Your task to perform on an android device: choose inbox layout in the gmail app Image 0: 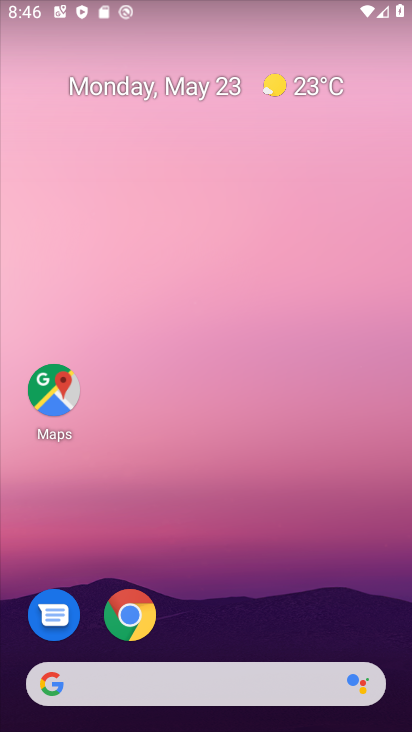
Step 0: drag from (286, 574) to (284, 156)
Your task to perform on an android device: choose inbox layout in the gmail app Image 1: 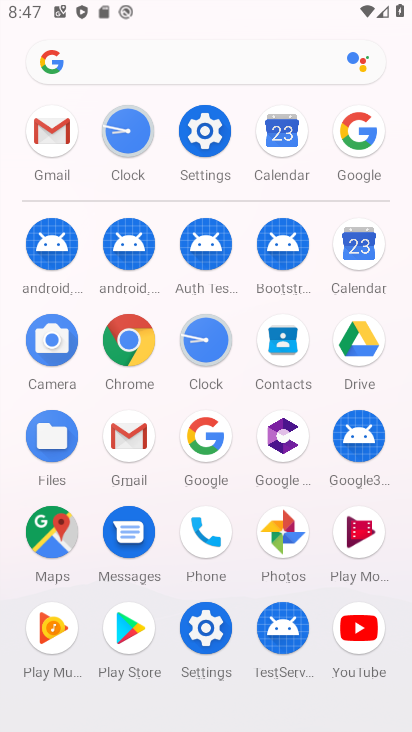
Step 1: click (51, 131)
Your task to perform on an android device: choose inbox layout in the gmail app Image 2: 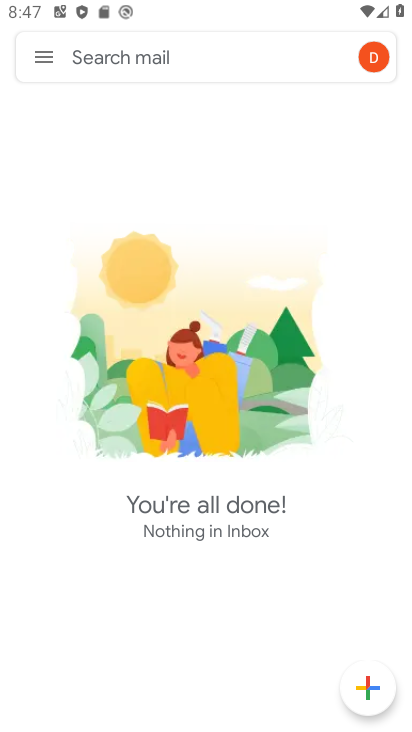
Step 2: click (41, 55)
Your task to perform on an android device: choose inbox layout in the gmail app Image 3: 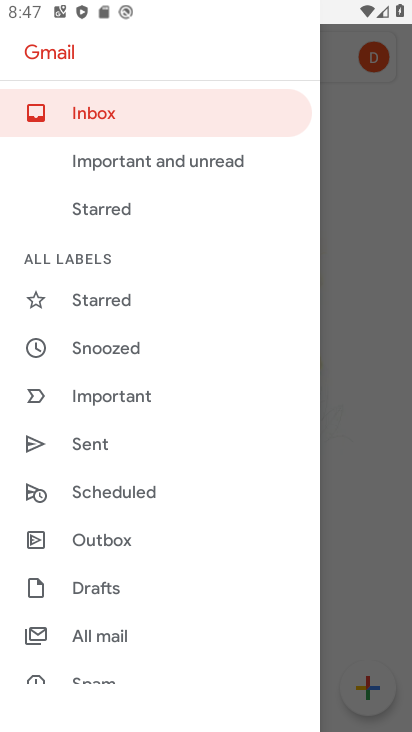
Step 3: drag from (134, 520) to (140, 453)
Your task to perform on an android device: choose inbox layout in the gmail app Image 4: 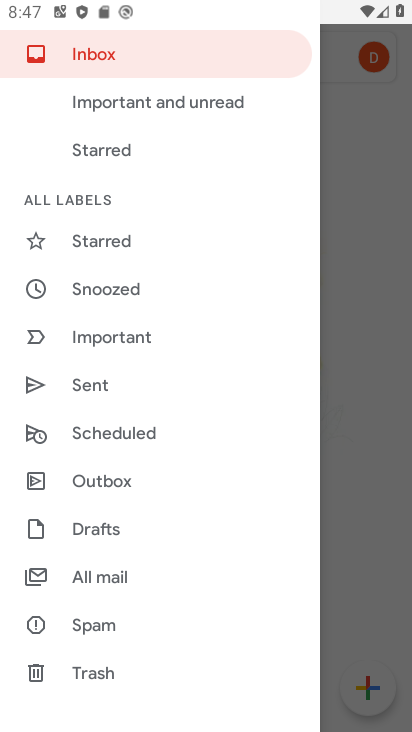
Step 4: drag from (120, 508) to (136, 442)
Your task to perform on an android device: choose inbox layout in the gmail app Image 5: 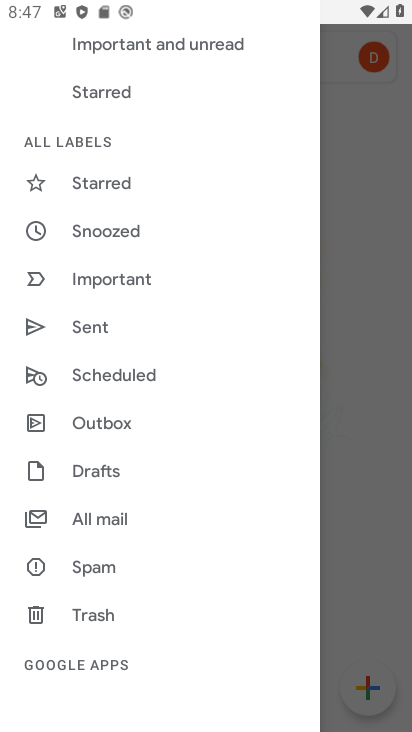
Step 5: drag from (107, 495) to (154, 429)
Your task to perform on an android device: choose inbox layout in the gmail app Image 6: 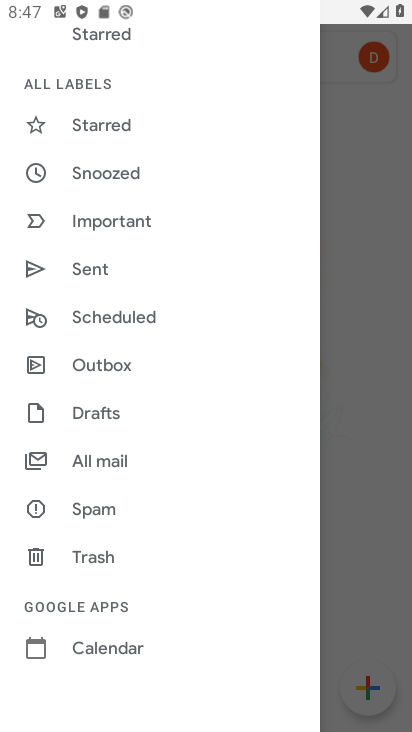
Step 6: drag from (111, 496) to (146, 436)
Your task to perform on an android device: choose inbox layout in the gmail app Image 7: 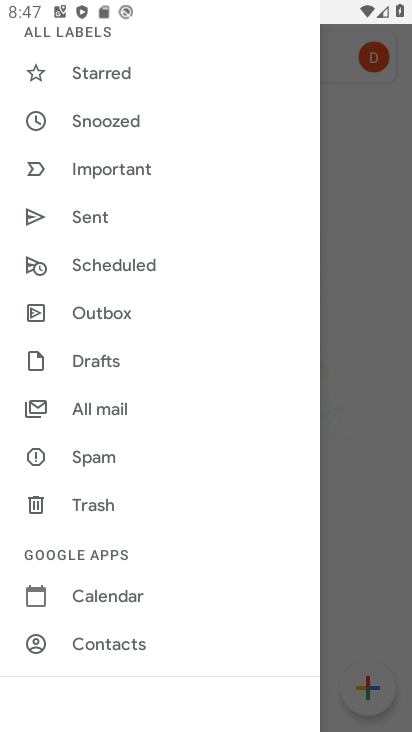
Step 7: drag from (107, 487) to (158, 422)
Your task to perform on an android device: choose inbox layout in the gmail app Image 8: 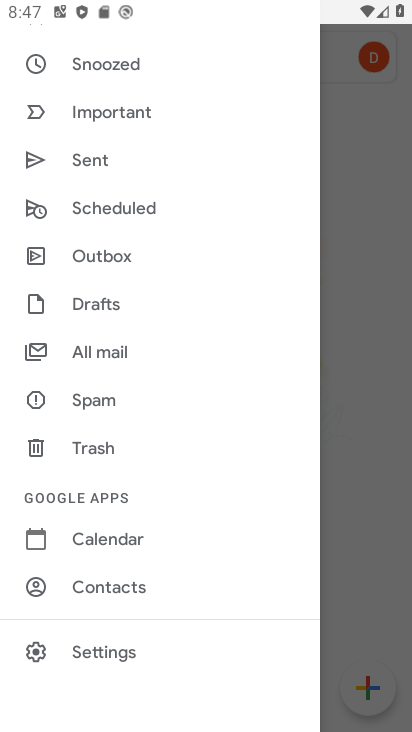
Step 8: drag from (92, 511) to (152, 437)
Your task to perform on an android device: choose inbox layout in the gmail app Image 9: 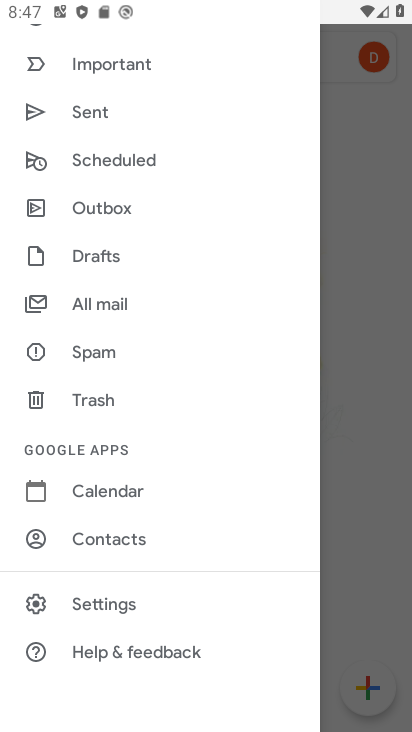
Step 9: click (124, 603)
Your task to perform on an android device: choose inbox layout in the gmail app Image 10: 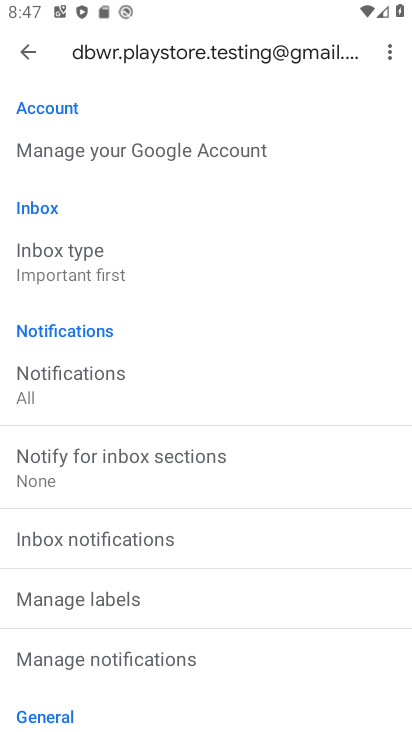
Step 10: click (98, 250)
Your task to perform on an android device: choose inbox layout in the gmail app Image 11: 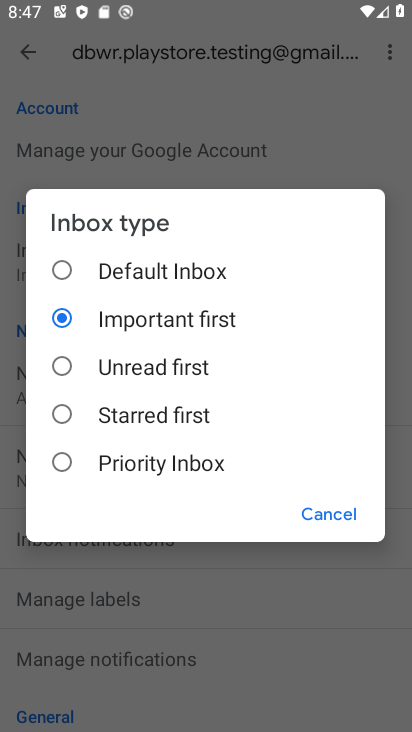
Step 11: click (72, 371)
Your task to perform on an android device: choose inbox layout in the gmail app Image 12: 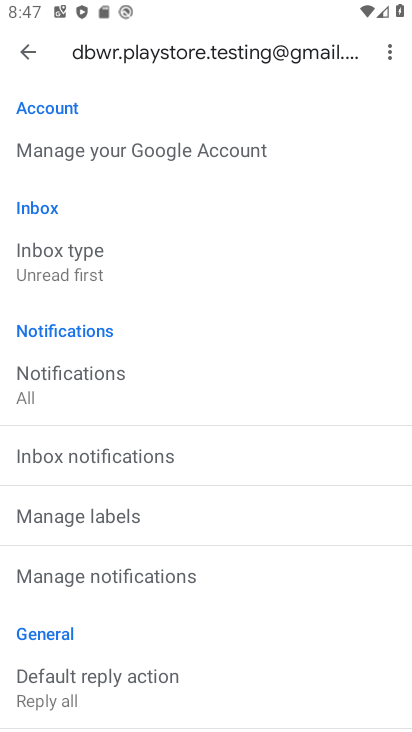
Step 12: task complete